Your task to perform on an android device: turn off improve location accuracy Image 0: 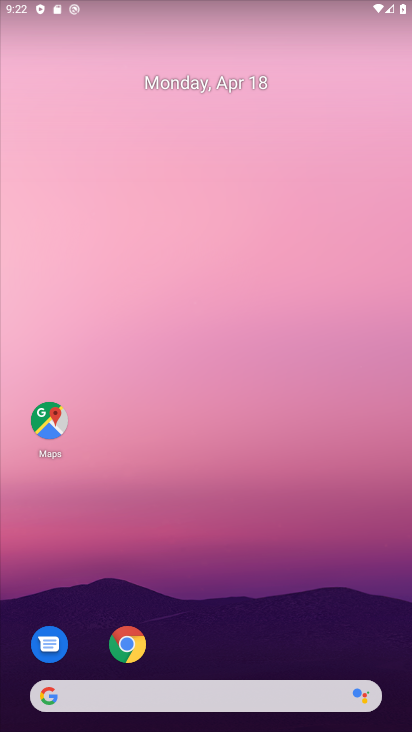
Step 0: drag from (255, 589) to (343, 28)
Your task to perform on an android device: turn off improve location accuracy Image 1: 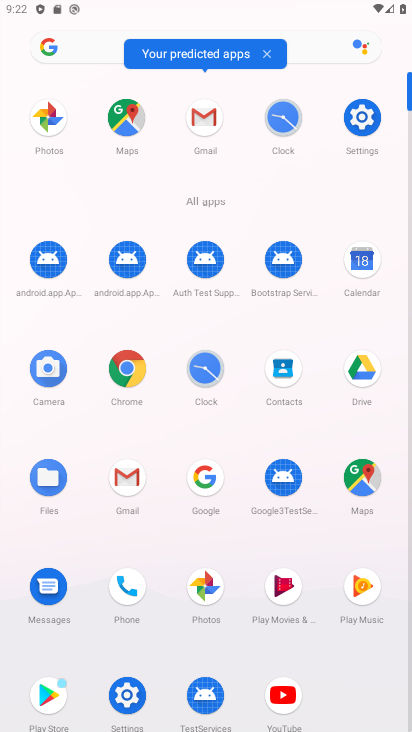
Step 1: click (359, 116)
Your task to perform on an android device: turn off improve location accuracy Image 2: 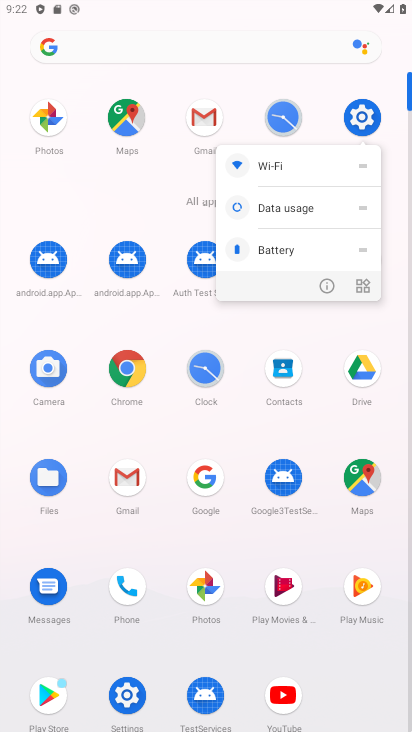
Step 2: click (368, 107)
Your task to perform on an android device: turn off improve location accuracy Image 3: 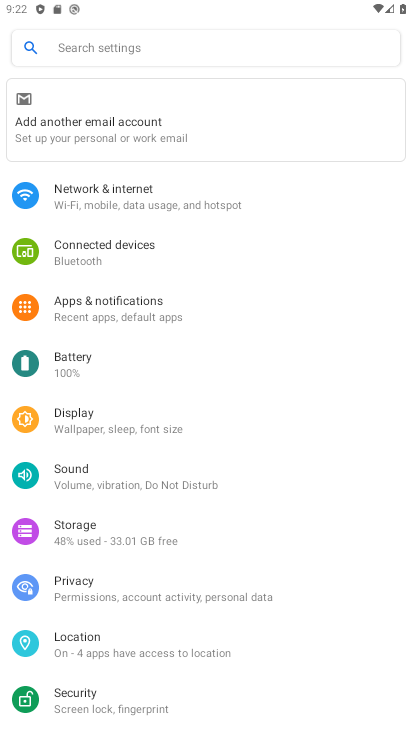
Step 3: click (74, 636)
Your task to perform on an android device: turn off improve location accuracy Image 4: 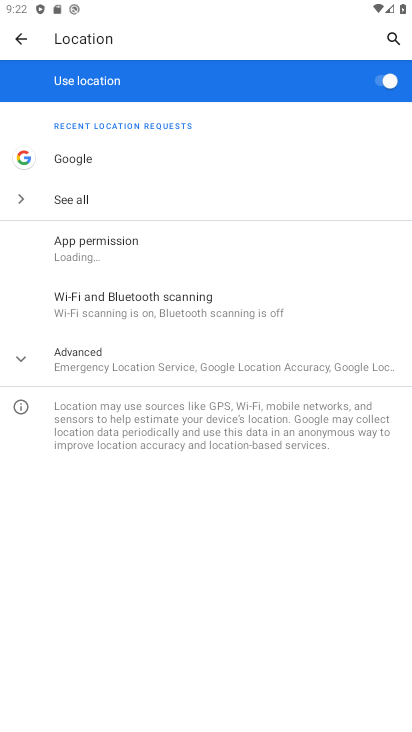
Step 4: click (133, 374)
Your task to perform on an android device: turn off improve location accuracy Image 5: 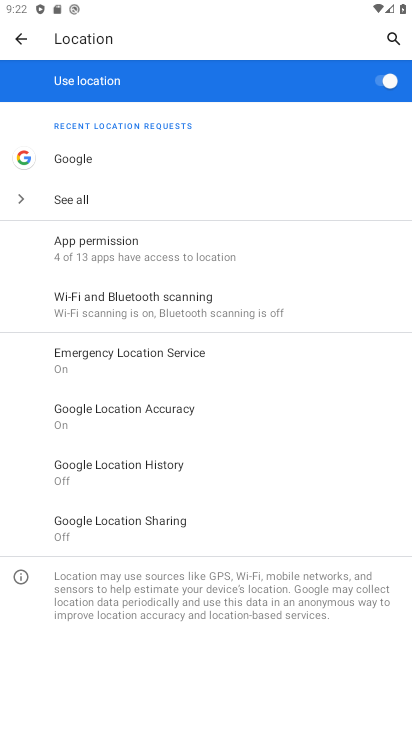
Step 5: click (166, 414)
Your task to perform on an android device: turn off improve location accuracy Image 6: 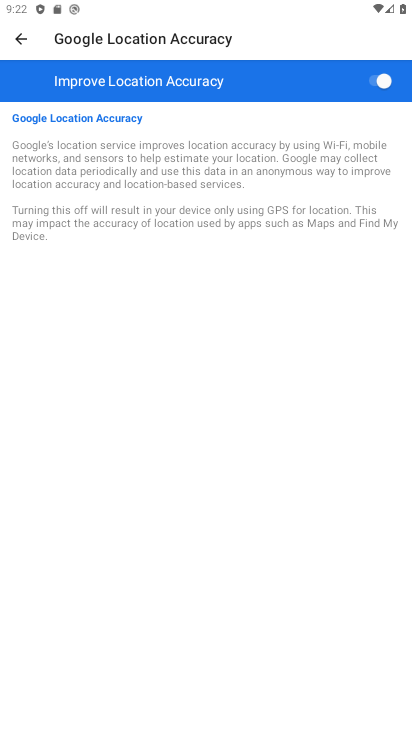
Step 6: click (373, 77)
Your task to perform on an android device: turn off improve location accuracy Image 7: 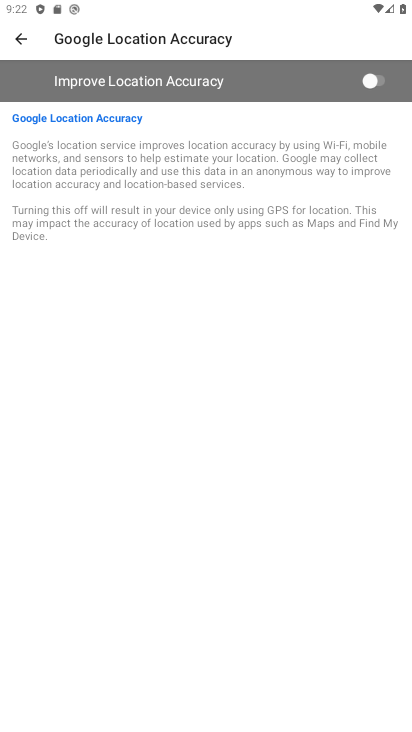
Step 7: task complete